Your task to perform on an android device: allow notifications from all sites in the chrome app Image 0: 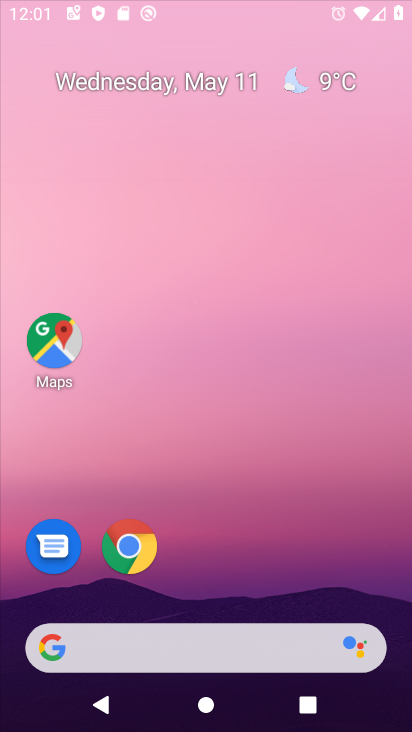
Step 0: click (307, 71)
Your task to perform on an android device: allow notifications from all sites in the chrome app Image 1: 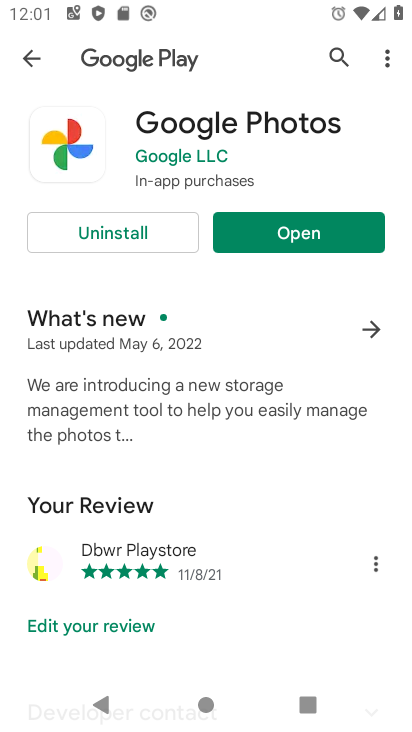
Step 1: drag from (219, 550) to (276, 100)
Your task to perform on an android device: allow notifications from all sites in the chrome app Image 2: 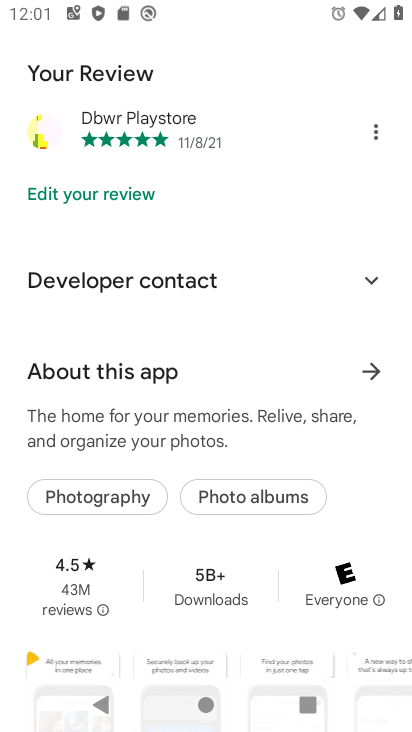
Step 2: press back button
Your task to perform on an android device: allow notifications from all sites in the chrome app Image 3: 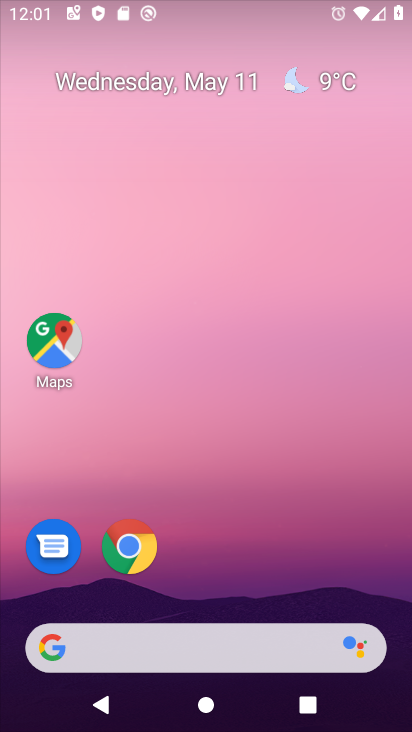
Step 3: press home button
Your task to perform on an android device: allow notifications from all sites in the chrome app Image 4: 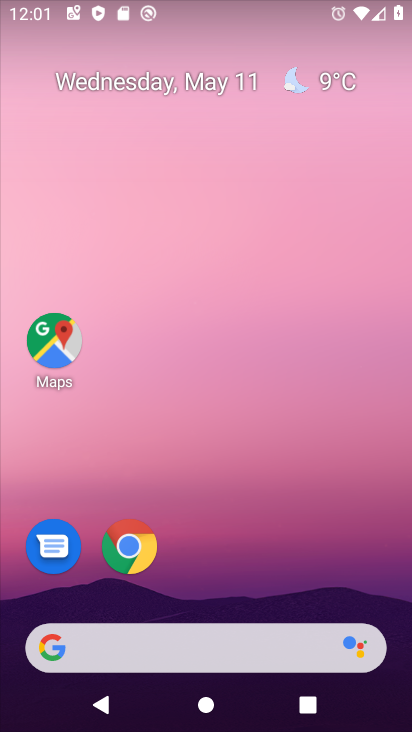
Step 4: drag from (212, 554) to (258, 60)
Your task to perform on an android device: allow notifications from all sites in the chrome app Image 5: 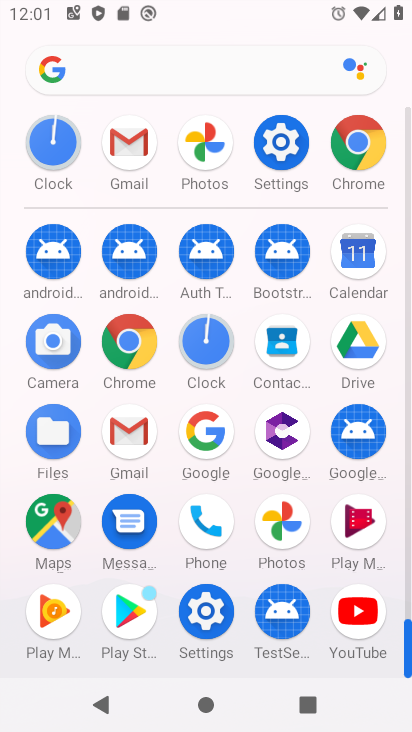
Step 5: click (125, 335)
Your task to perform on an android device: allow notifications from all sites in the chrome app Image 6: 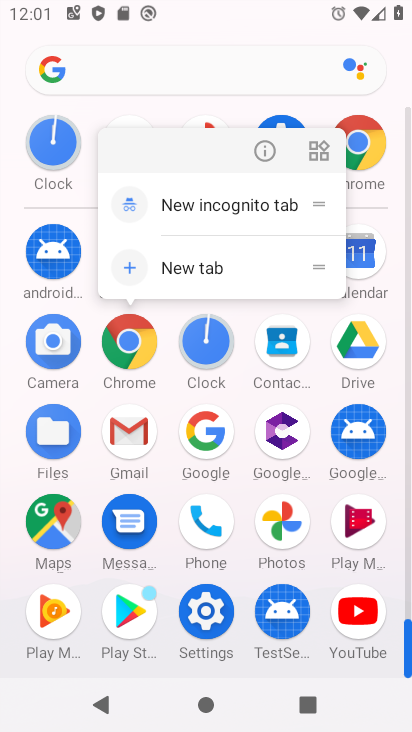
Step 6: click (250, 149)
Your task to perform on an android device: allow notifications from all sites in the chrome app Image 7: 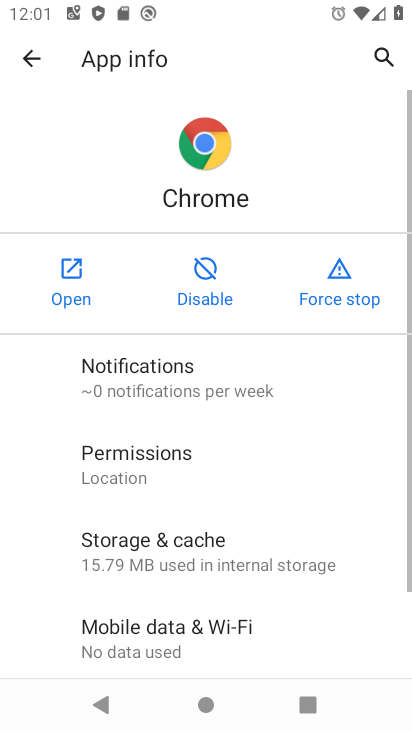
Step 7: click (58, 296)
Your task to perform on an android device: allow notifications from all sites in the chrome app Image 8: 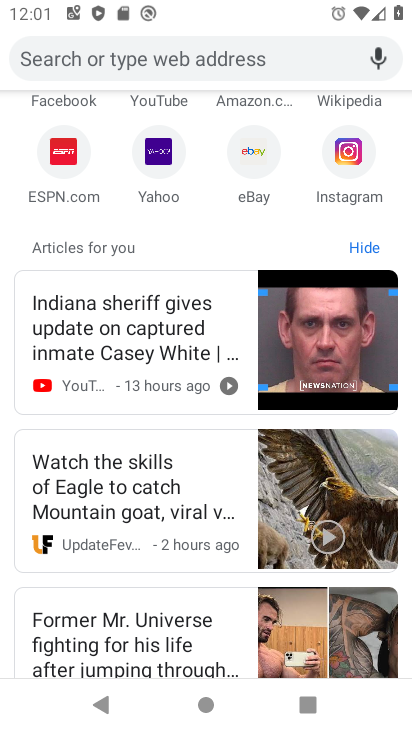
Step 8: drag from (207, 115) to (235, 525)
Your task to perform on an android device: allow notifications from all sites in the chrome app Image 9: 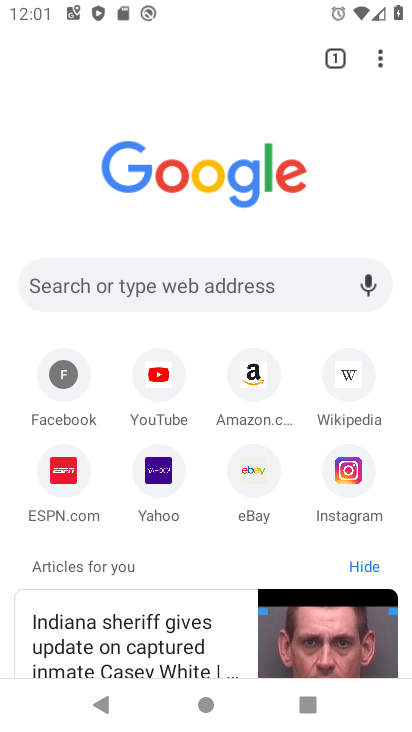
Step 9: drag from (379, 51) to (211, 487)
Your task to perform on an android device: allow notifications from all sites in the chrome app Image 10: 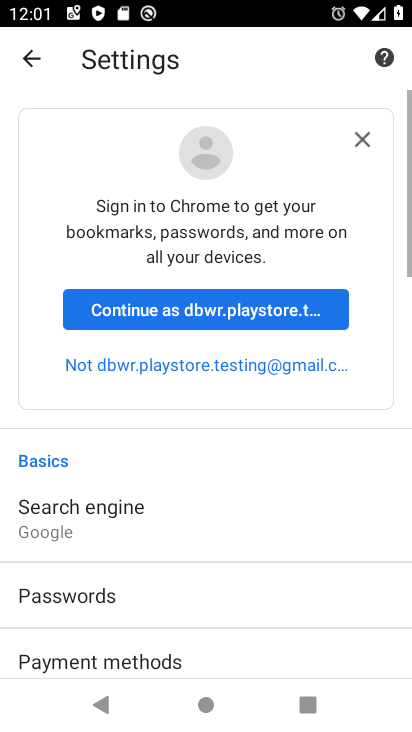
Step 10: drag from (227, 583) to (274, 119)
Your task to perform on an android device: allow notifications from all sites in the chrome app Image 11: 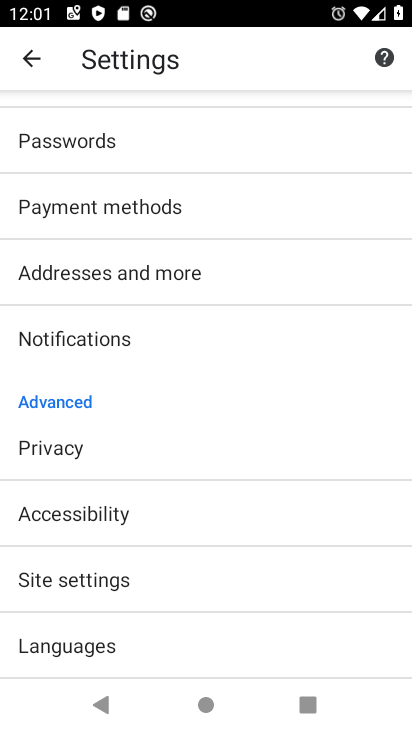
Step 11: click (93, 568)
Your task to perform on an android device: allow notifications from all sites in the chrome app Image 12: 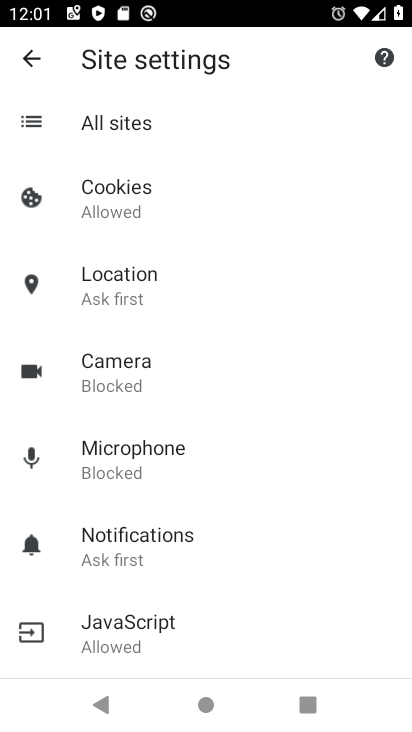
Step 12: click (152, 531)
Your task to perform on an android device: allow notifications from all sites in the chrome app Image 13: 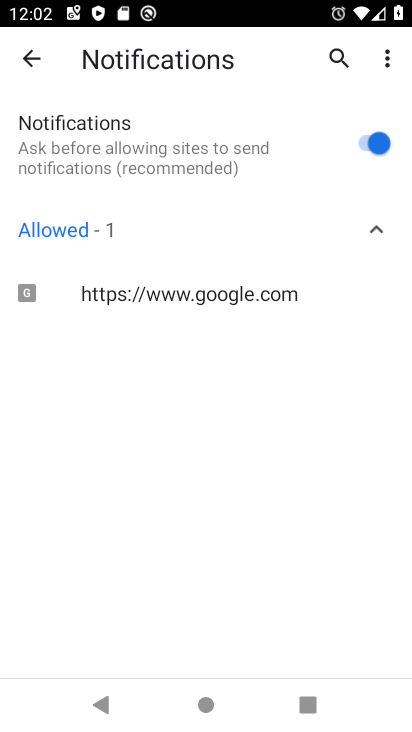
Step 13: task complete